Your task to perform on an android device: Open Google Maps and go to "Timeline" Image 0: 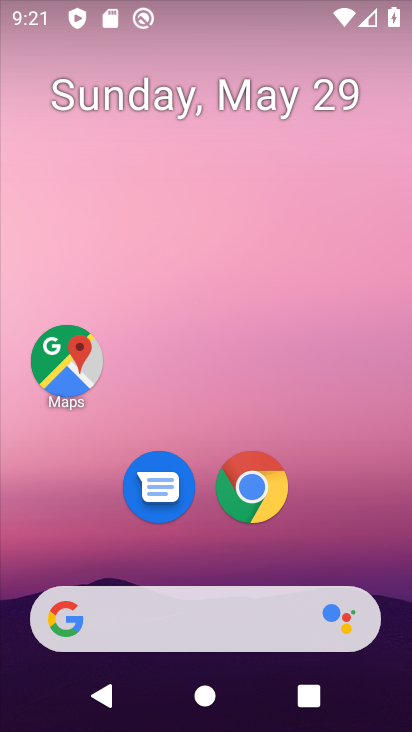
Step 0: drag from (388, 724) to (375, 645)
Your task to perform on an android device: Open Google Maps and go to "Timeline" Image 1: 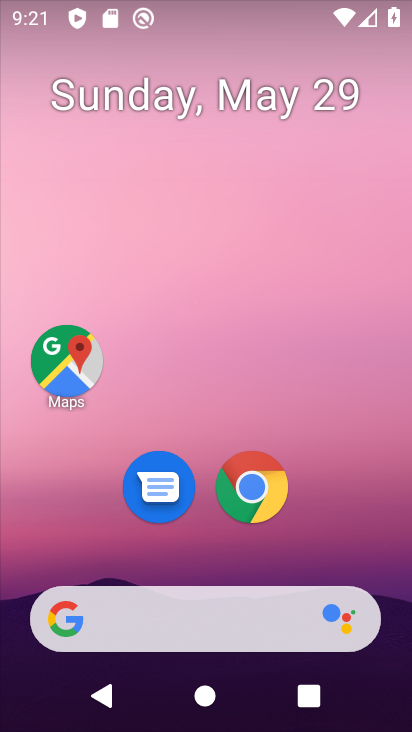
Step 1: click (58, 348)
Your task to perform on an android device: Open Google Maps and go to "Timeline" Image 2: 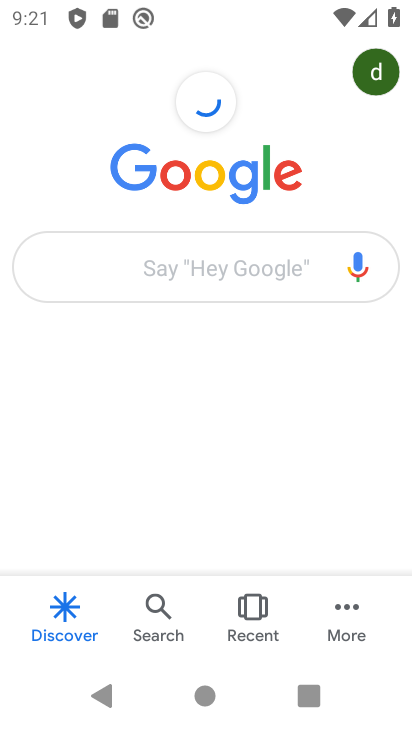
Step 2: press back button
Your task to perform on an android device: Open Google Maps and go to "Timeline" Image 3: 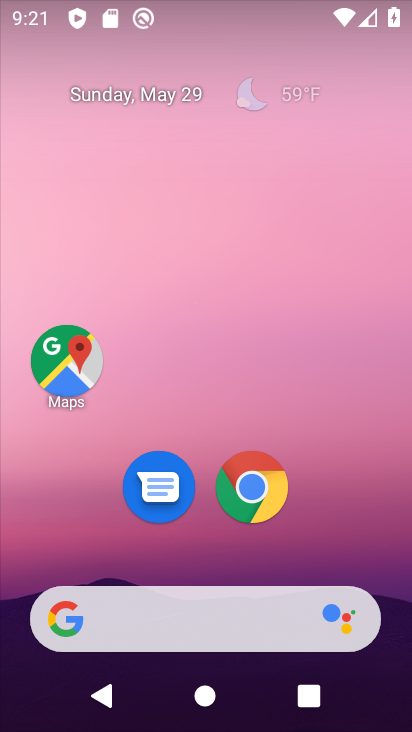
Step 3: click (6, 356)
Your task to perform on an android device: Open Google Maps and go to "Timeline" Image 4: 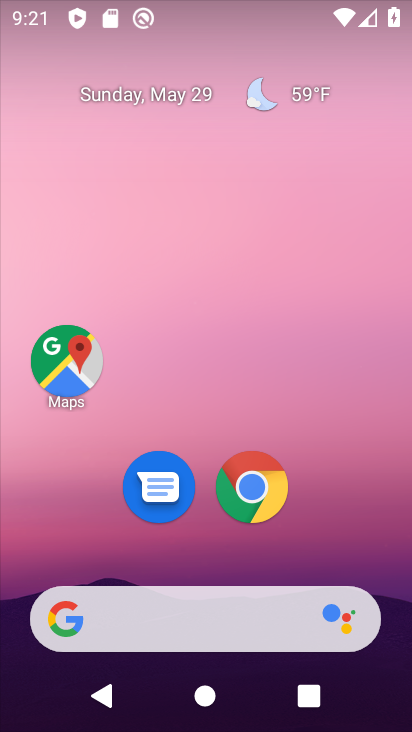
Step 4: click (49, 358)
Your task to perform on an android device: Open Google Maps and go to "Timeline" Image 5: 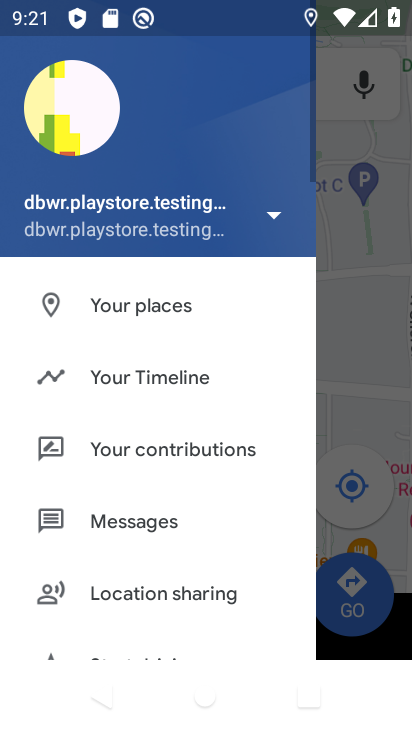
Step 5: click (117, 370)
Your task to perform on an android device: Open Google Maps and go to "Timeline" Image 6: 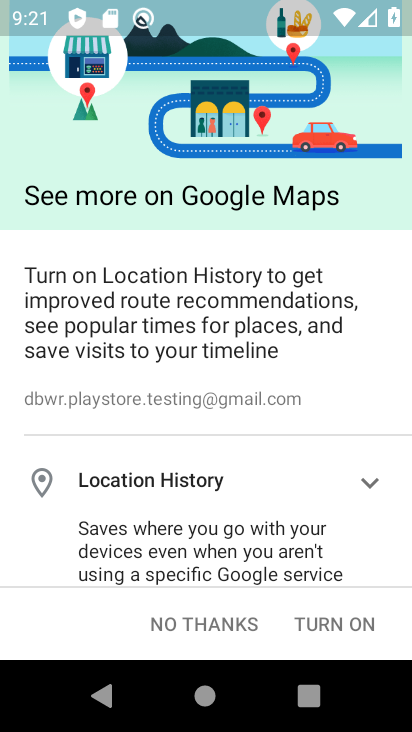
Step 6: click (318, 620)
Your task to perform on an android device: Open Google Maps and go to "Timeline" Image 7: 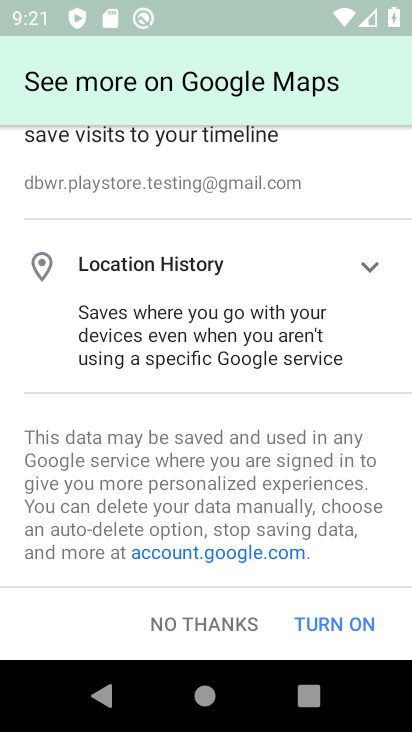
Step 7: press back button
Your task to perform on an android device: Open Google Maps and go to "Timeline" Image 8: 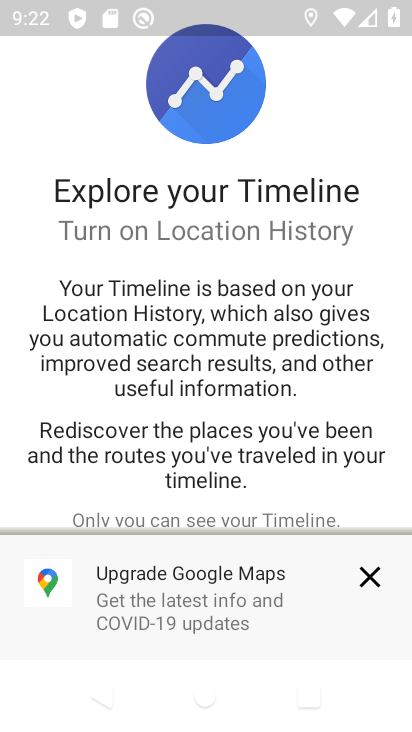
Step 8: click (350, 579)
Your task to perform on an android device: Open Google Maps and go to "Timeline" Image 9: 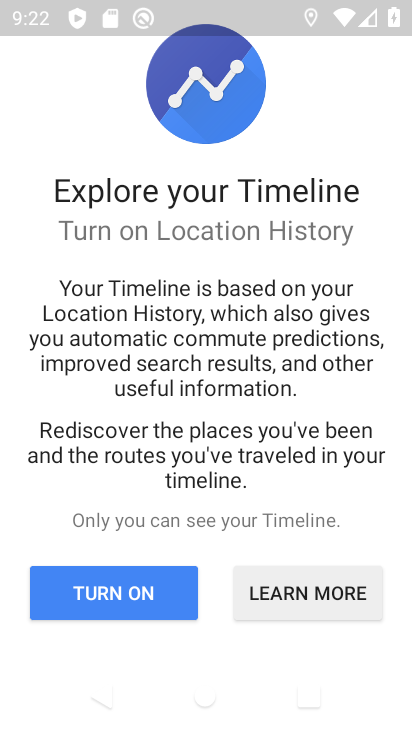
Step 9: task complete